Your task to perform on an android device: Go to network settings Image 0: 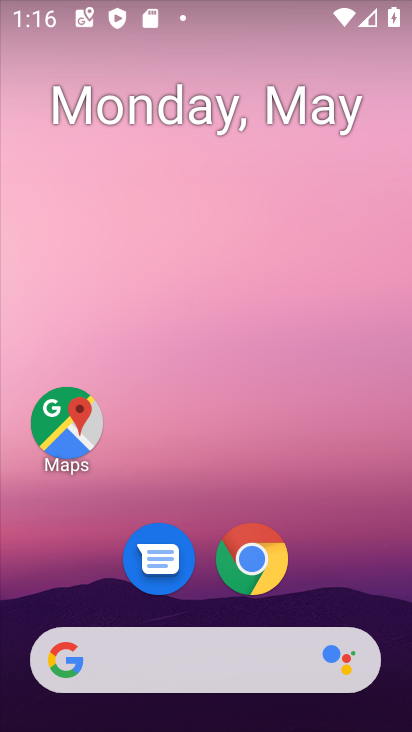
Step 0: click (274, 536)
Your task to perform on an android device: Go to network settings Image 1: 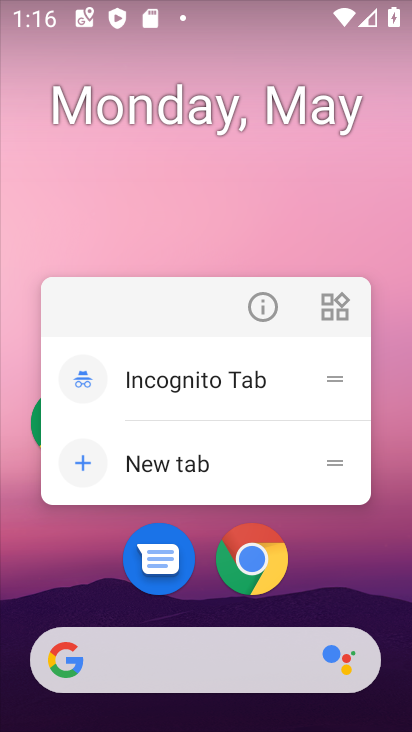
Step 1: press home button
Your task to perform on an android device: Go to network settings Image 2: 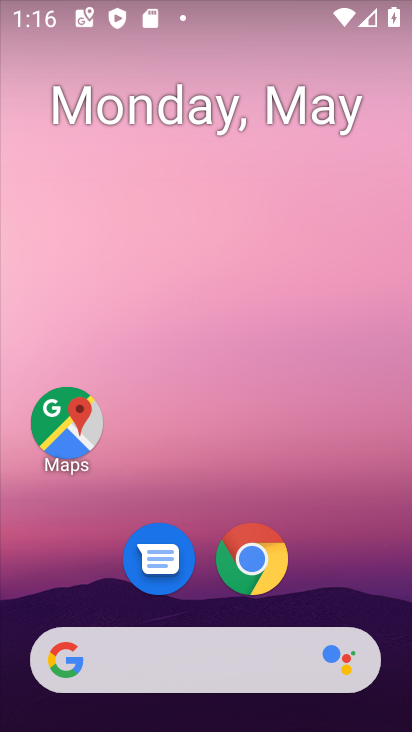
Step 2: drag from (239, 671) to (249, 132)
Your task to perform on an android device: Go to network settings Image 3: 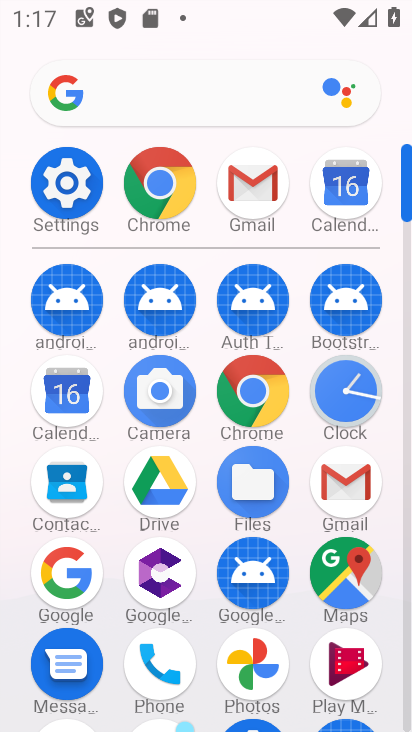
Step 3: click (62, 183)
Your task to perform on an android device: Go to network settings Image 4: 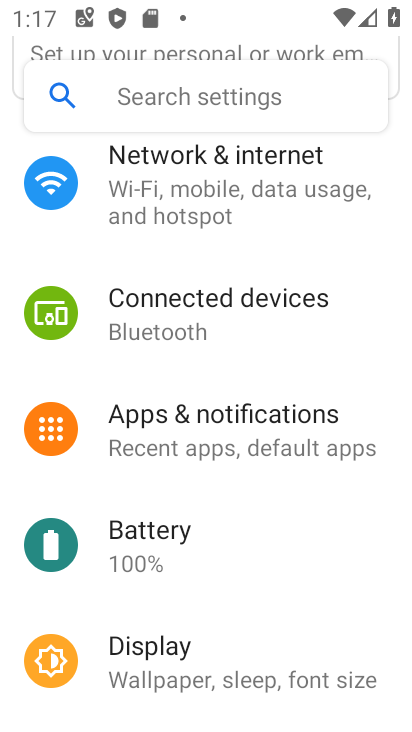
Step 4: click (237, 184)
Your task to perform on an android device: Go to network settings Image 5: 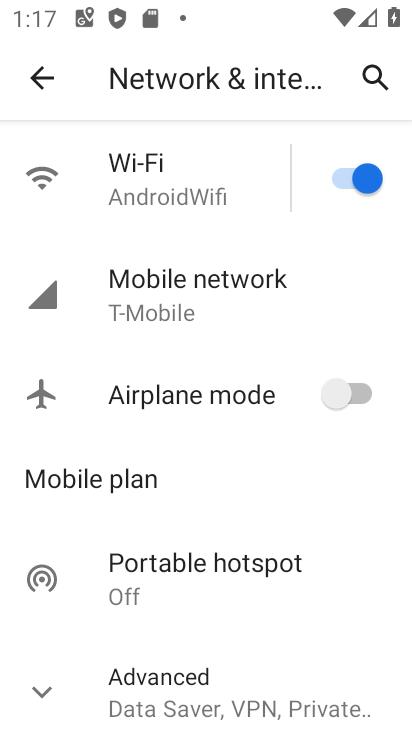
Step 5: task complete